Your task to perform on an android device: Check the news Image 0: 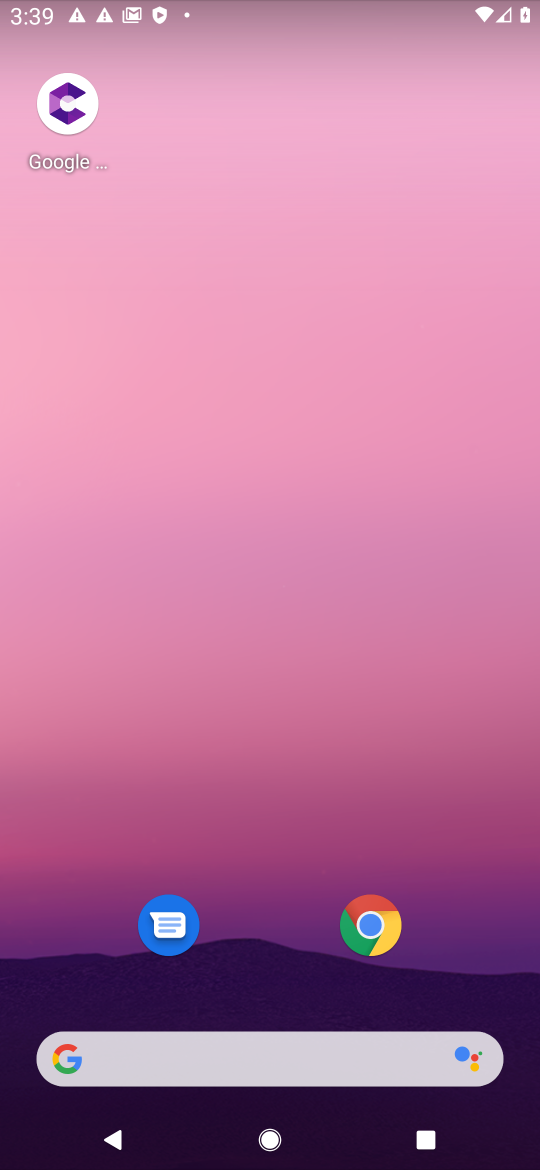
Step 0: drag from (1, 447) to (513, 416)
Your task to perform on an android device: Check the news Image 1: 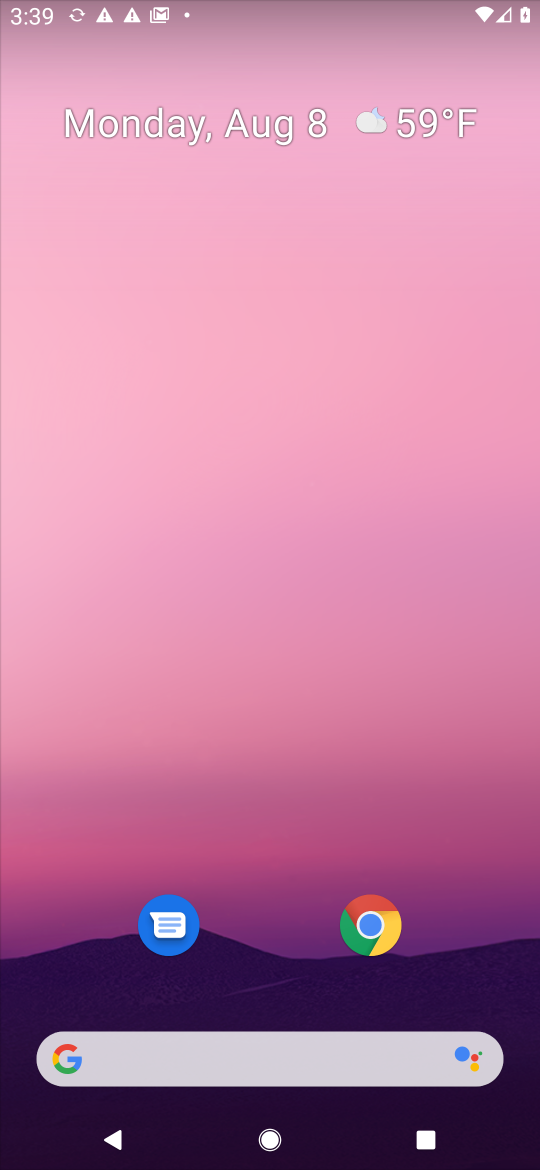
Step 1: task complete